Your task to perform on an android device: turn on location history Image 0: 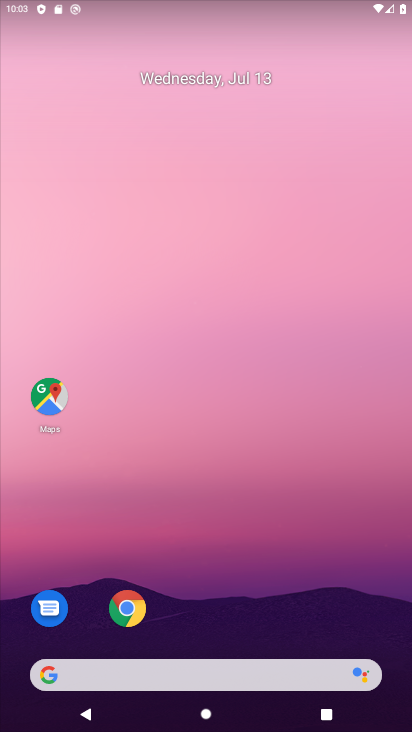
Step 0: drag from (292, 600) to (281, 13)
Your task to perform on an android device: turn on location history Image 1: 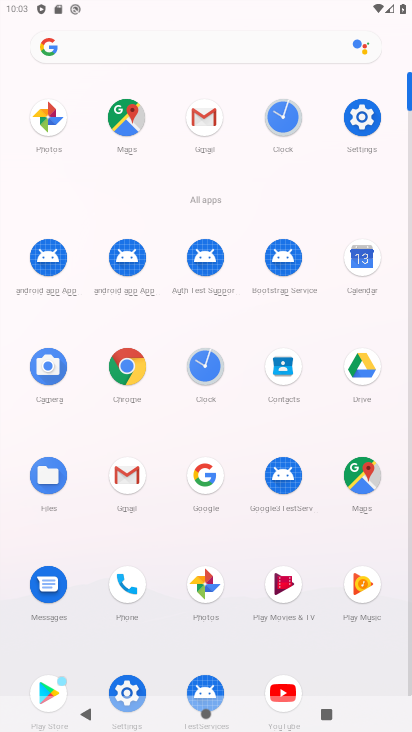
Step 1: click (363, 130)
Your task to perform on an android device: turn on location history Image 2: 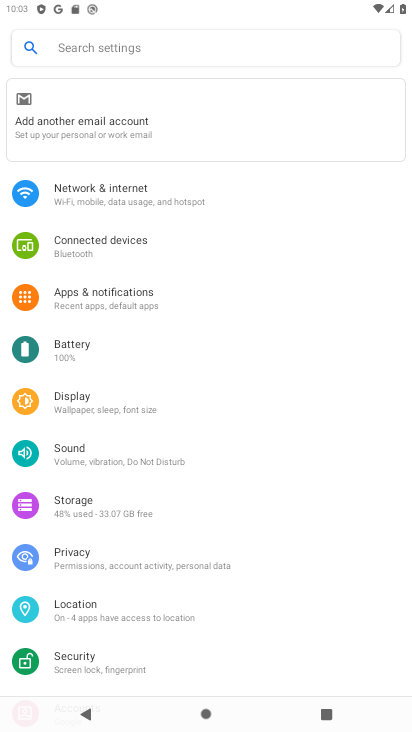
Step 2: click (119, 609)
Your task to perform on an android device: turn on location history Image 3: 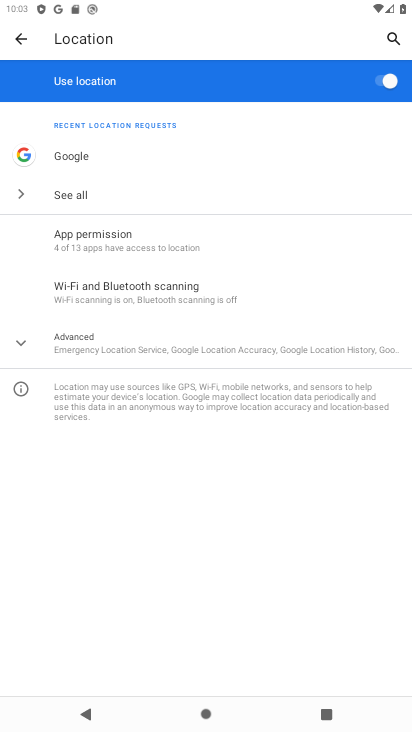
Step 3: click (125, 342)
Your task to perform on an android device: turn on location history Image 4: 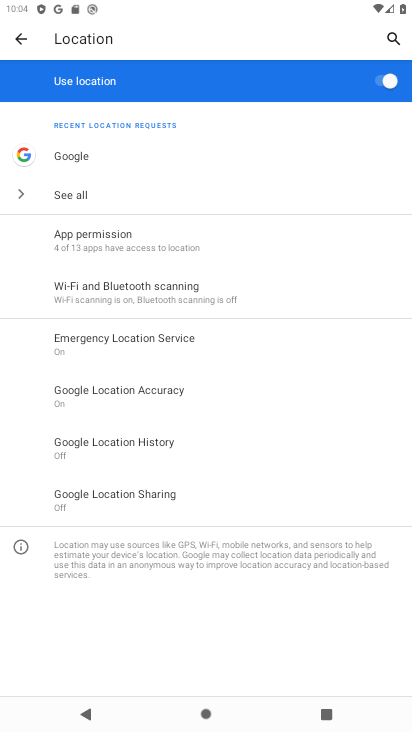
Step 4: click (143, 442)
Your task to perform on an android device: turn on location history Image 5: 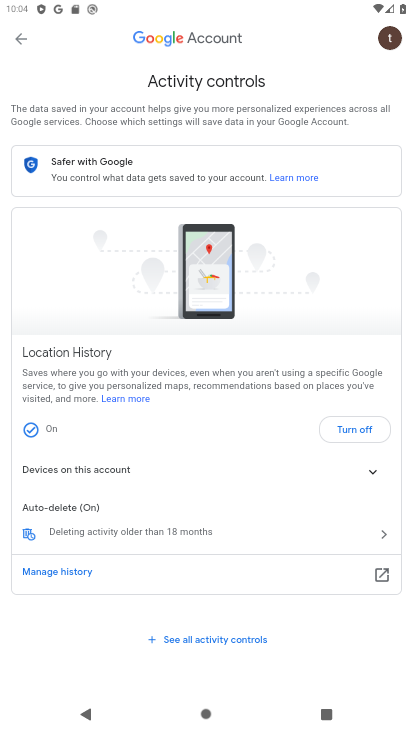
Step 5: task complete